Your task to perform on an android device: Open notification settings Image 0: 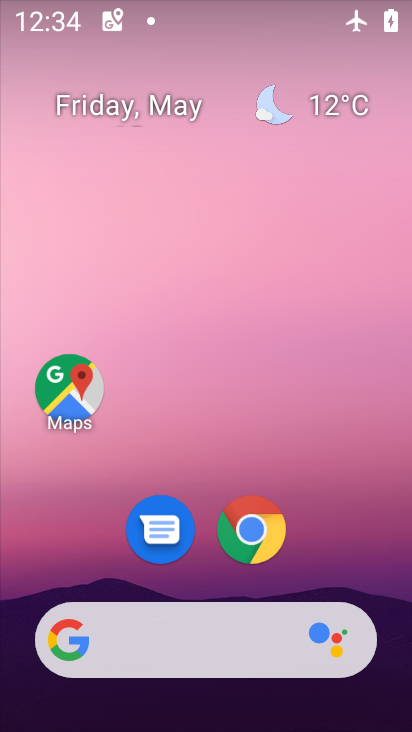
Step 0: drag from (339, 443) to (369, 171)
Your task to perform on an android device: Open notification settings Image 1: 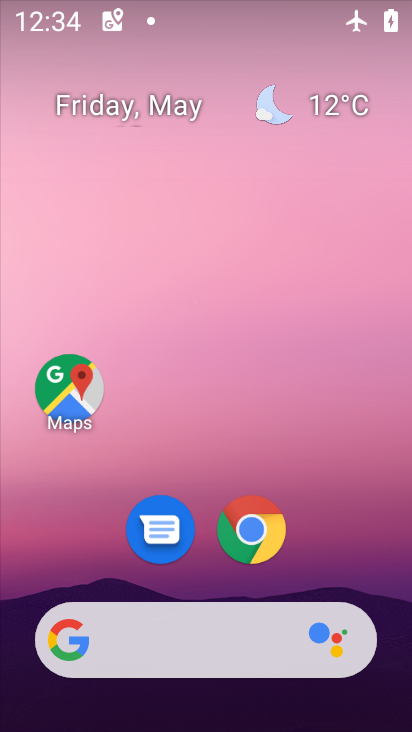
Step 1: drag from (319, 561) to (319, 221)
Your task to perform on an android device: Open notification settings Image 2: 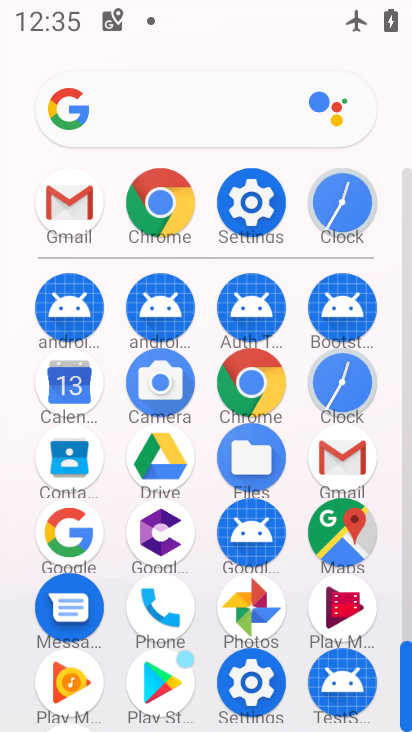
Step 2: click (239, 199)
Your task to perform on an android device: Open notification settings Image 3: 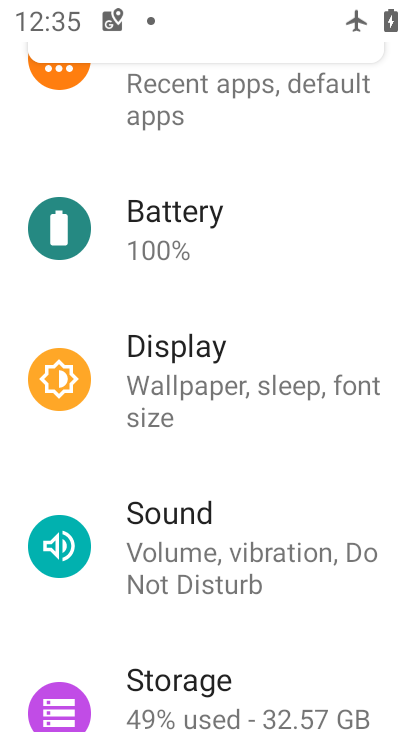
Step 3: drag from (245, 207) to (217, 654)
Your task to perform on an android device: Open notification settings Image 4: 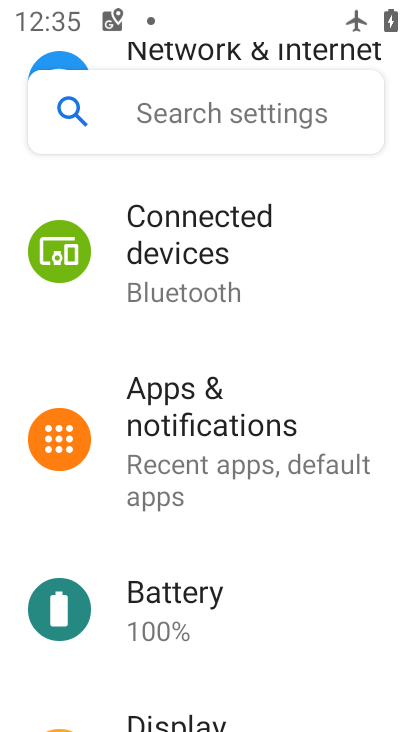
Step 4: drag from (221, 132) to (247, 478)
Your task to perform on an android device: Open notification settings Image 5: 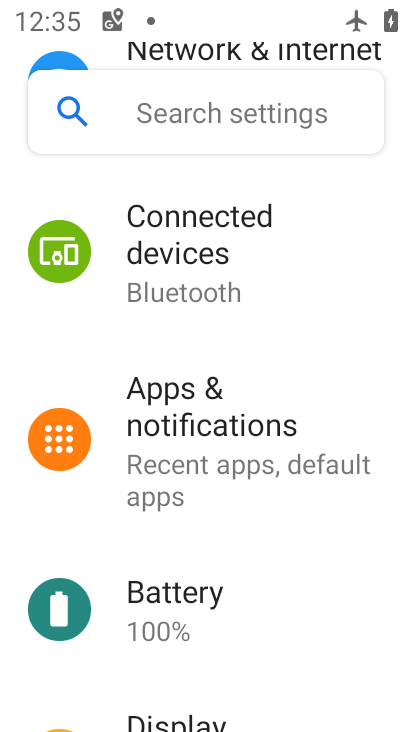
Step 5: click (215, 435)
Your task to perform on an android device: Open notification settings Image 6: 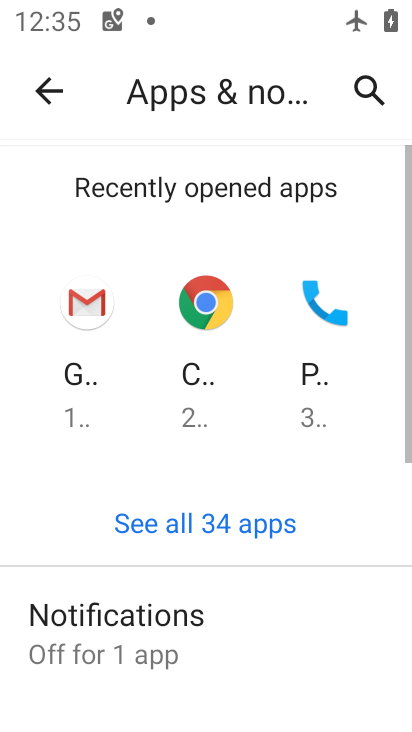
Step 6: click (144, 621)
Your task to perform on an android device: Open notification settings Image 7: 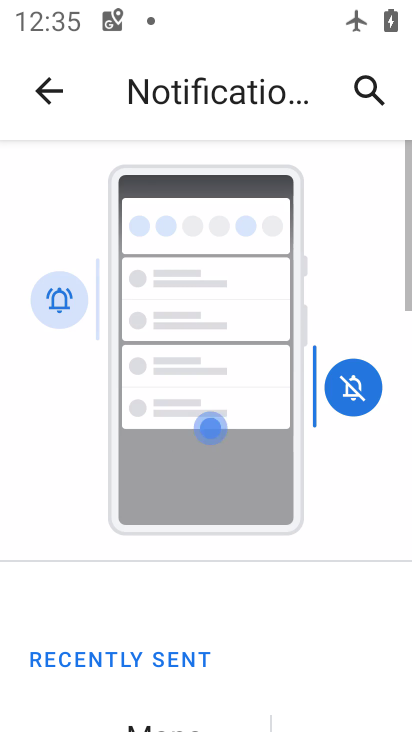
Step 7: task complete